Your task to perform on an android device: toggle data saver in the chrome app Image 0: 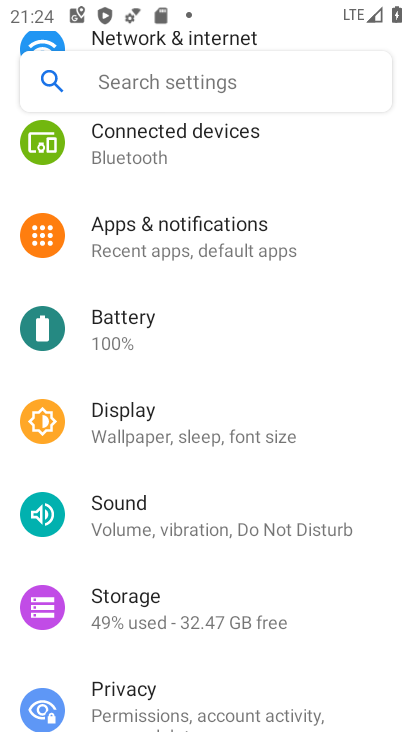
Step 0: press home button
Your task to perform on an android device: toggle data saver in the chrome app Image 1: 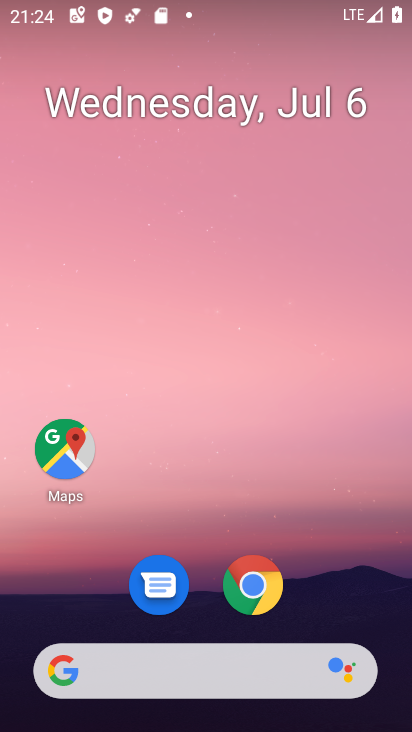
Step 1: drag from (194, 487) to (202, 330)
Your task to perform on an android device: toggle data saver in the chrome app Image 2: 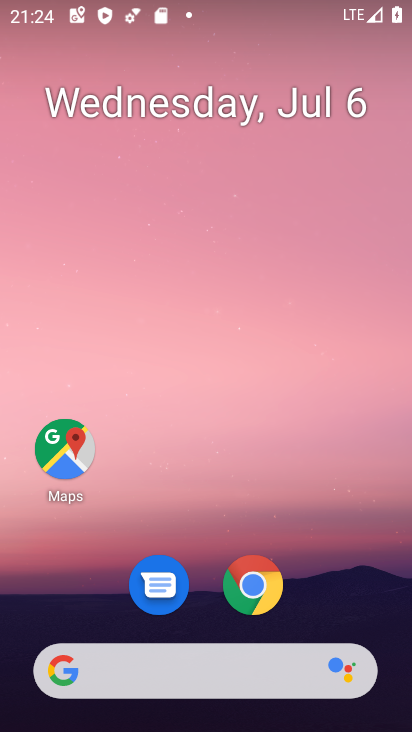
Step 2: drag from (50, 127) to (54, 51)
Your task to perform on an android device: toggle data saver in the chrome app Image 3: 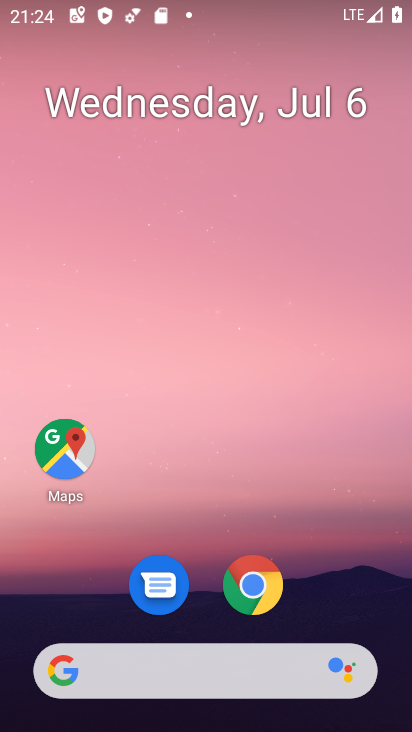
Step 3: drag from (193, 466) to (227, 20)
Your task to perform on an android device: toggle data saver in the chrome app Image 4: 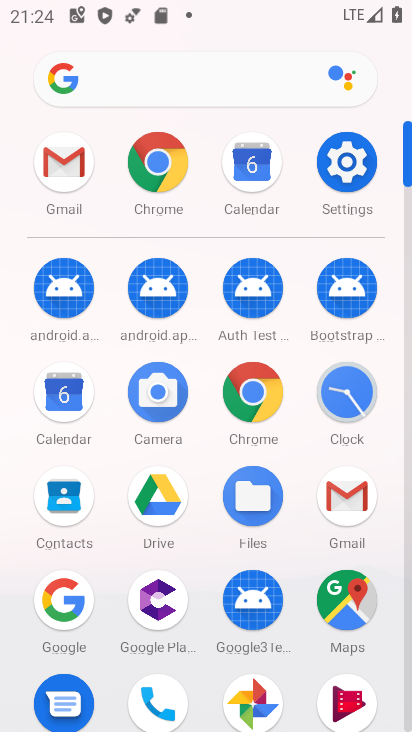
Step 4: click (164, 178)
Your task to perform on an android device: toggle data saver in the chrome app Image 5: 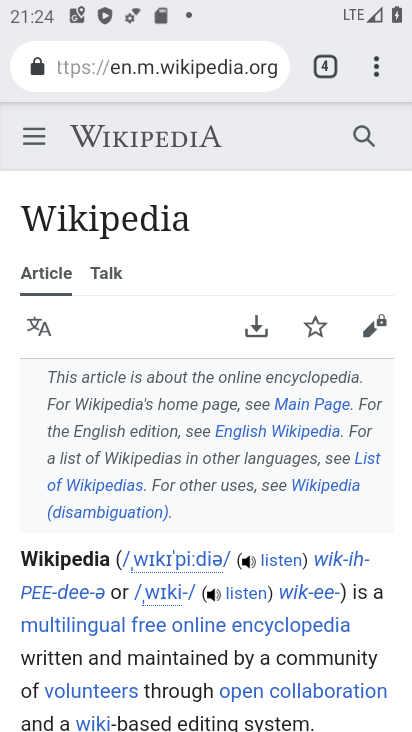
Step 5: click (379, 66)
Your task to perform on an android device: toggle data saver in the chrome app Image 6: 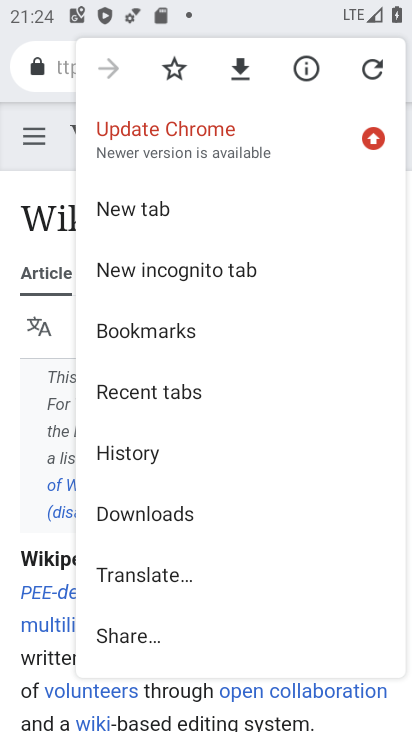
Step 6: drag from (237, 567) to (277, 118)
Your task to perform on an android device: toggle data saver in the chrome app Image 7: 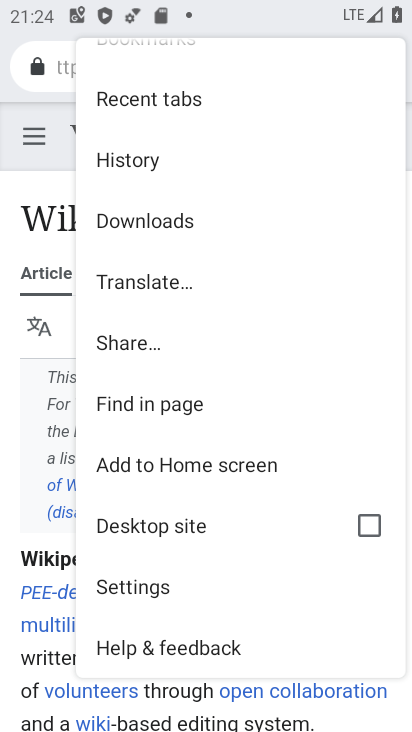
Step 7: click (149, 583)
Your task to perform on an android device: toggle data saver in the chrome app Image 8: 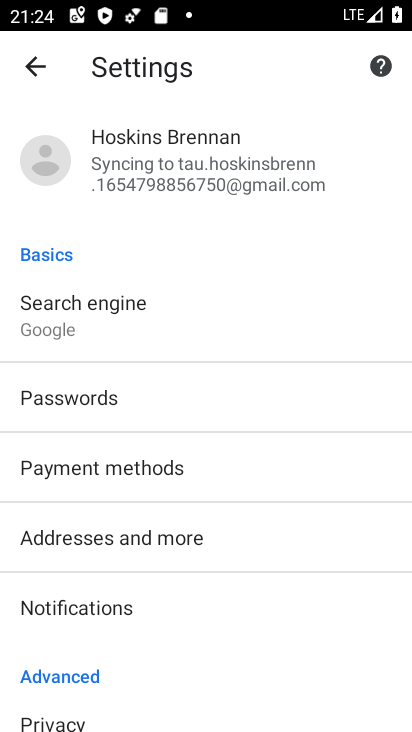
Step 8: drag from (266, 547) to (294, 181)
Your task to perform on an android device: toggle data saver in the chrome app Image 9: 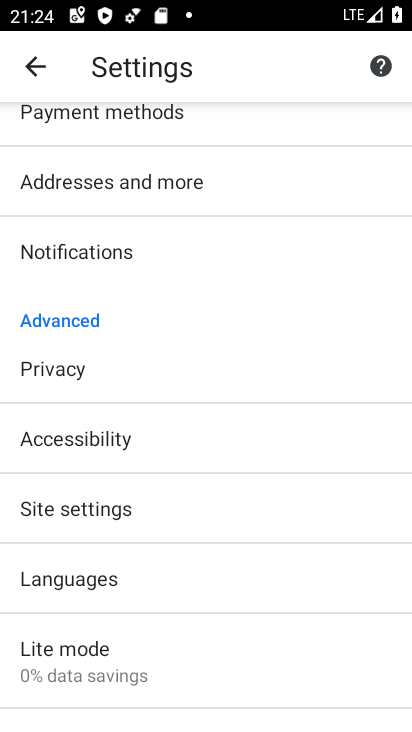
Step 9: click (133, 661)
Your task to perform on an android device: toggle data saver in the chrome app Image 10: 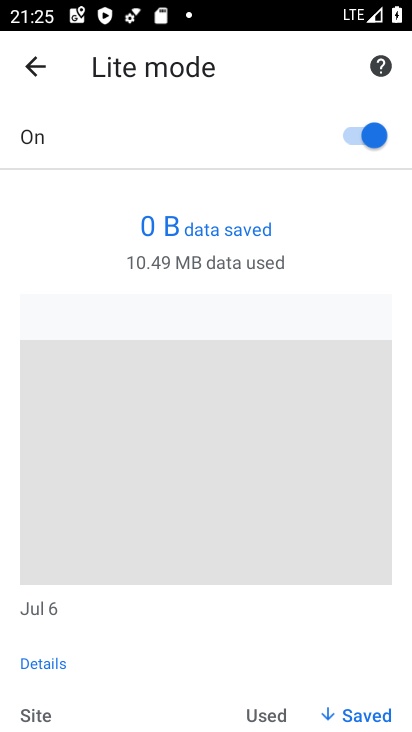
Step 10: click (362, 130)
Your task to perform on an android device: toggle data saver in the chrome app Image 11: 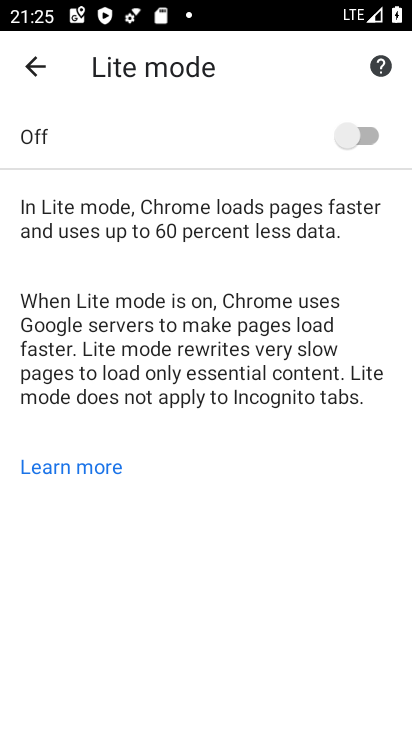
Step 11: task complete